Your task to perform on an android device: refresh tabs in the chrome app Image 0: 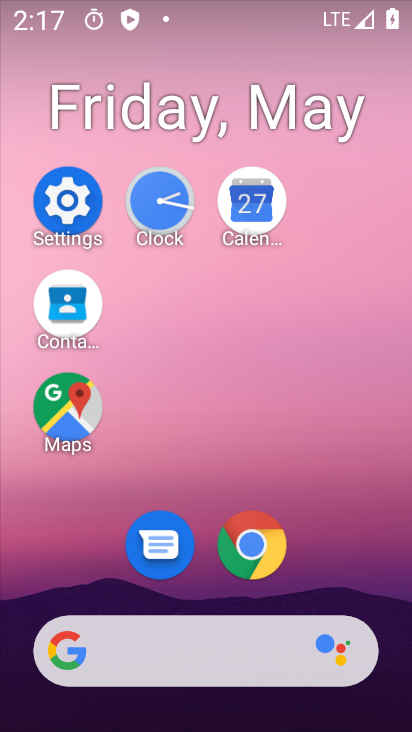
Step 0: click (275, 536)
Your task to perform on an android device: refresh tabs in the chrome app Image 1: 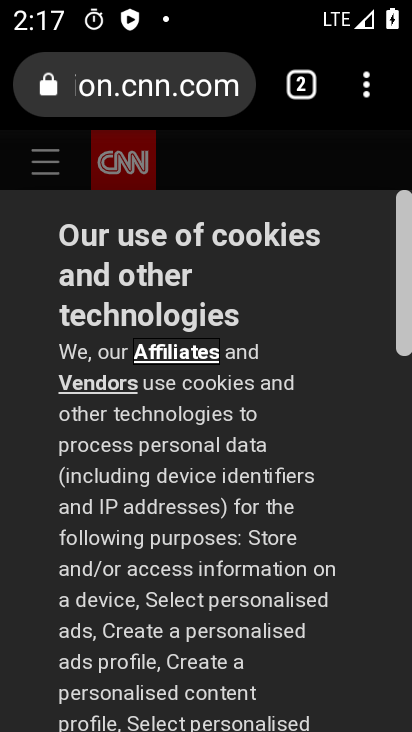
Step 1: click (375, 87)
Your task to perform on an android device: refresh tabs in the chrome app Image 2: 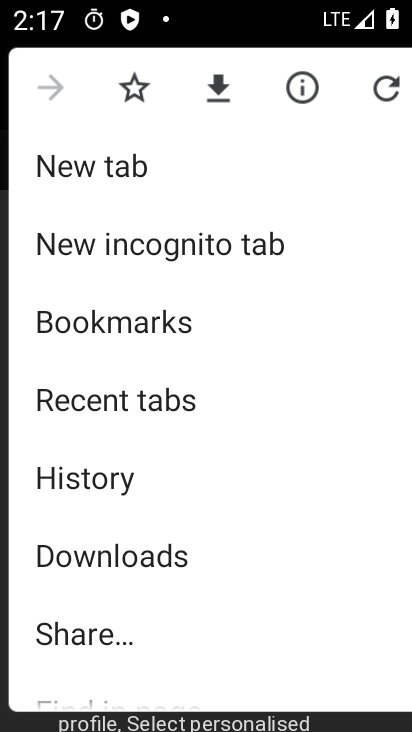
Step 2: click (389, 87)
Your task to perform on an android device: refresh tabs in the chrome app Image 3: 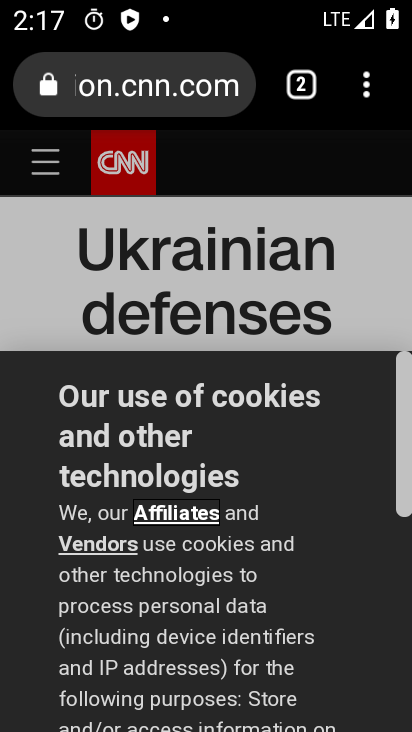
Step 3: task complete